Your task to perform on an android device: toggle notification dots Image 0: 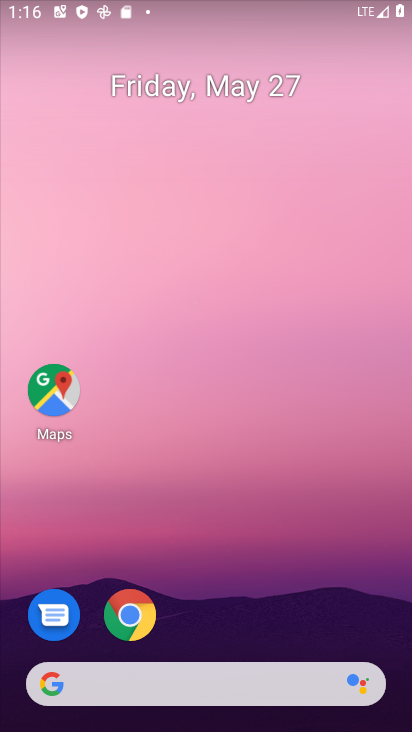
Step 0: drag from (347, 668) to (325, 73)
Your task to perform on an android device: toggle notification dots Image 1: 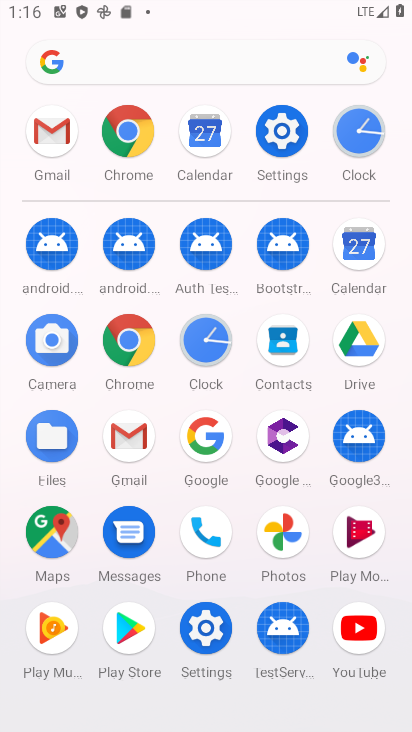
Step 1: click (283, 140)
Your task to perform on an android device: toggle notification dots Image 2: 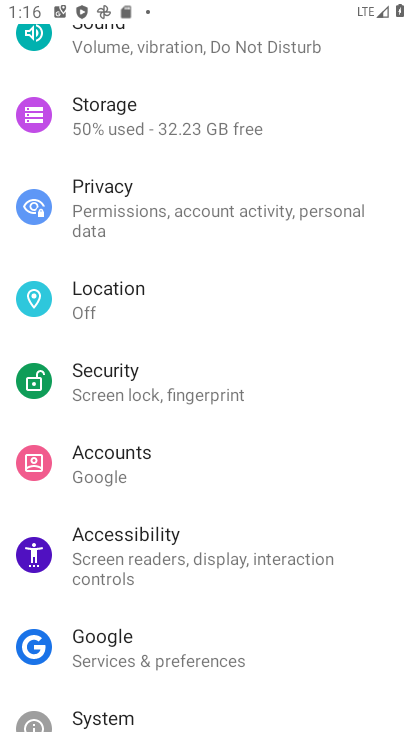
Step 2: drag from (239, 192) to (157, 715)
Your task to perform on an android device: toggle notification dots Image 3: 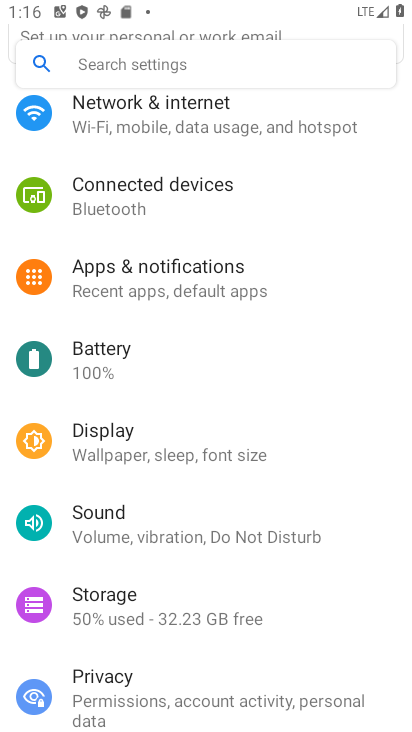
Step 3: click (210, 286)
Your task to perform on an android device: toggle notification dots Image 4: 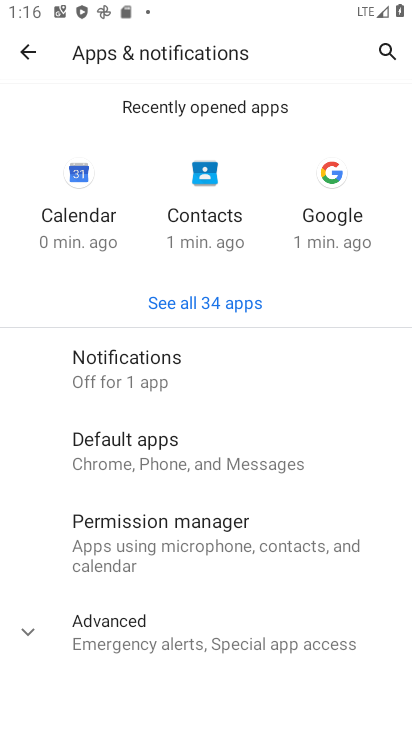
Step 4: click (185, 366)
Your task to perform on an android device: toggle notification dots Image 5: 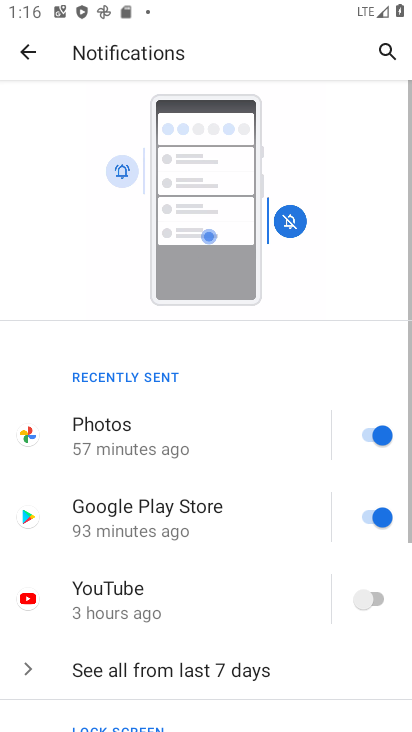
Step 5: drag from (243, 625) to (274, 17)
Your task to perform on an android device: toggle notification dots Image 6: 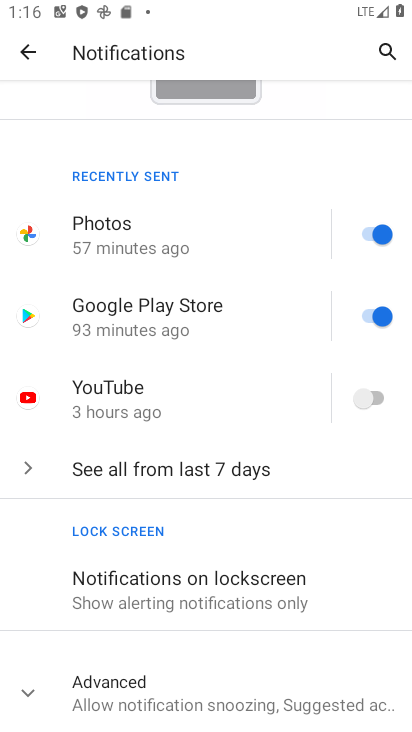
Step 6: click (188, 709)
Your task to perform on an android device: toggle notification dots Image 7: 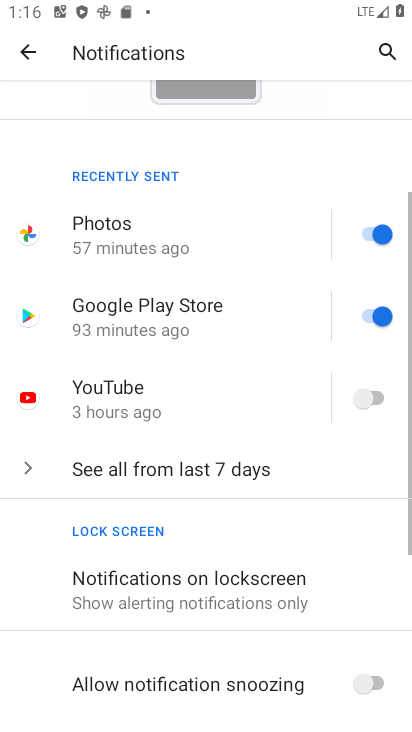
Step 7: drag from (257, 689) to (292, 157)
Your task to perform on an android device: toggle notification dots Image 8: 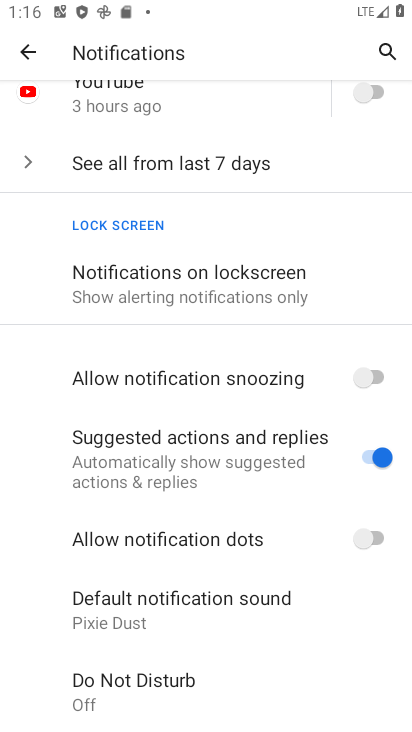
Step 8: click (374, 537)
Your task to perform on an android device: toggle notification dots Image 9: 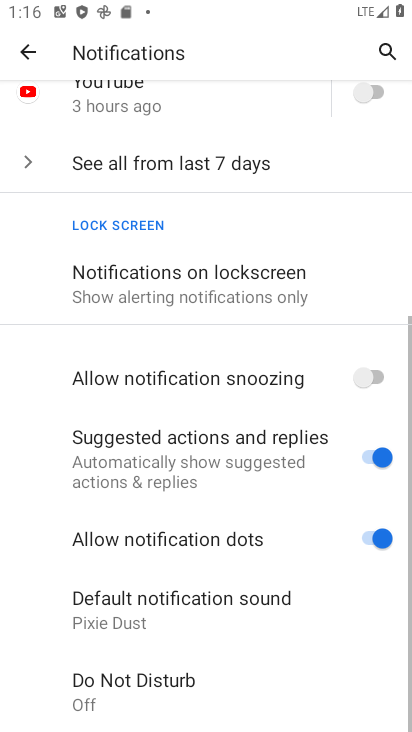
Step 9: task complete